Your task to perform on an android device: Check the news Image 0: 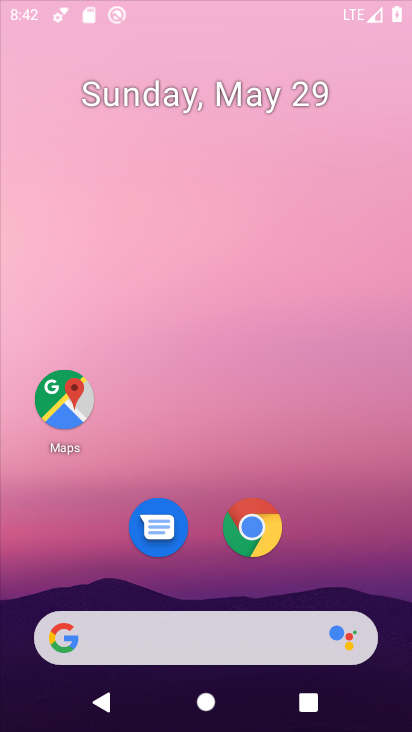
Step 0: press home button
Your task to perform on an android device: Check the news Image 1: 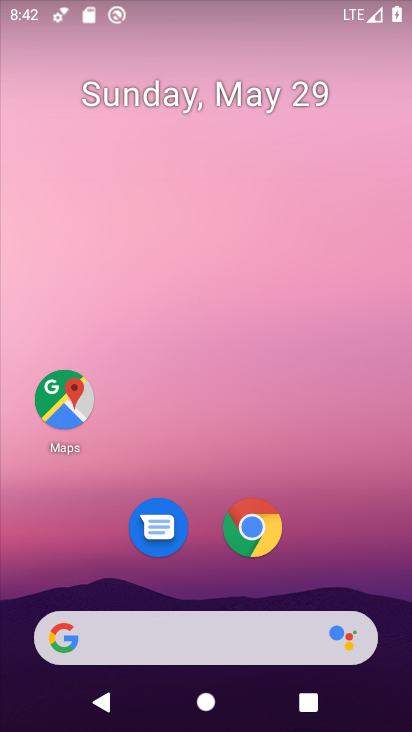
Step 1: drag from (11, 301) to (404, 309)
Your task to perform on an android device: Check the news Image 2: 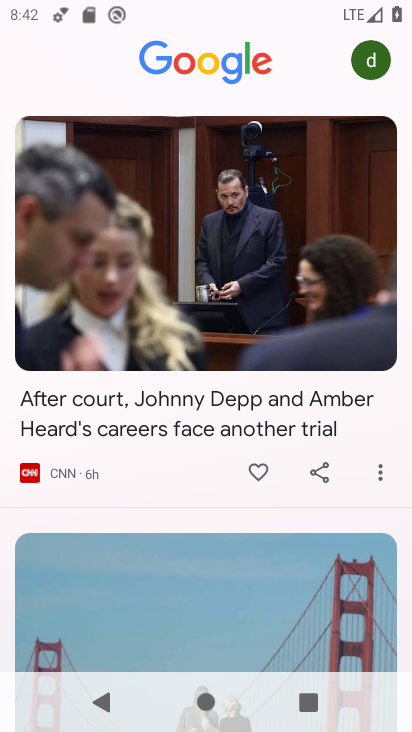
Step 2: drag from (206, 512) to (227, 124)
Your task to perform on an android device: Check the news Image 3: 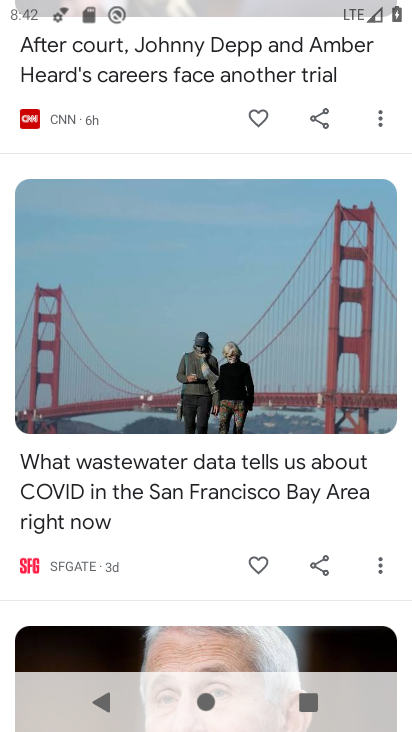
Step 3: drag from (226, 593) to (202, 91)
Your task to perform on an android device: Check the news Image 4: 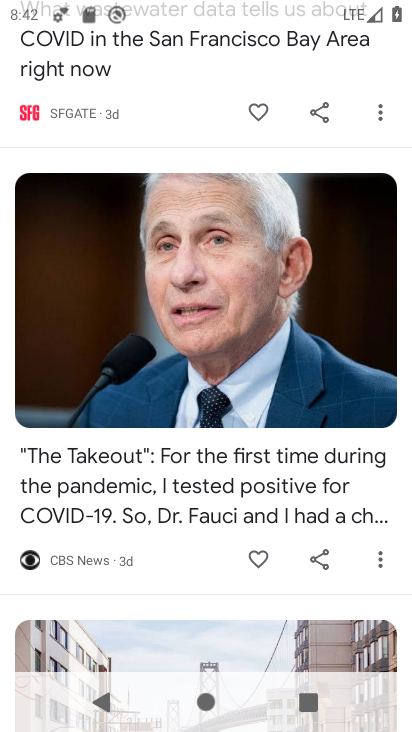
Step 4: click (204, 601)
Your task to perform on an android device: Check the news Image 5: 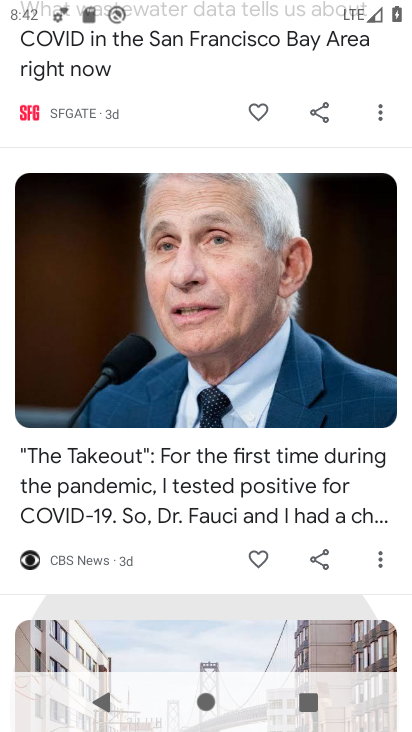
Step 5: drag from (221, 403) to (224, 94)
Your task to perform on an android device: Check the news Image 6: 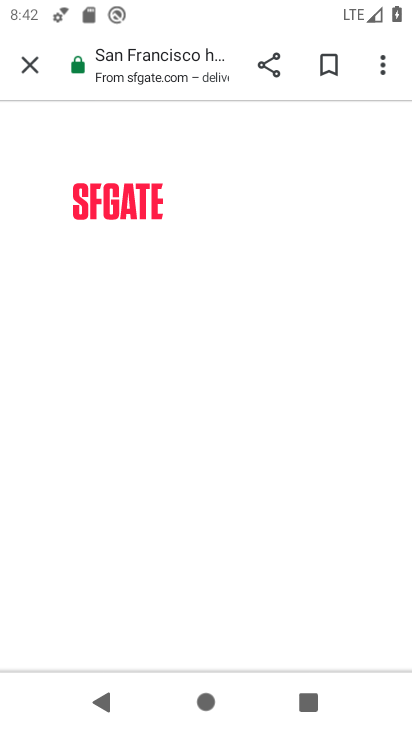
Step 6: click (26, 67)
Your task to perform on an android device: Check the news Image 7: 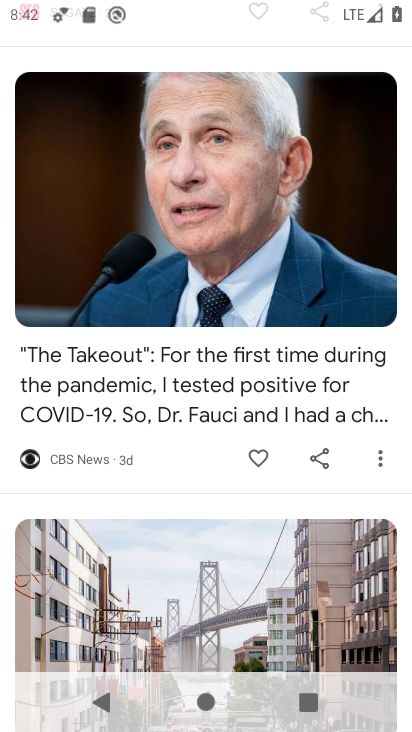
Step 7: task complete